Your task to perform on an android device: Show me popular games on the Play Store Image 0: 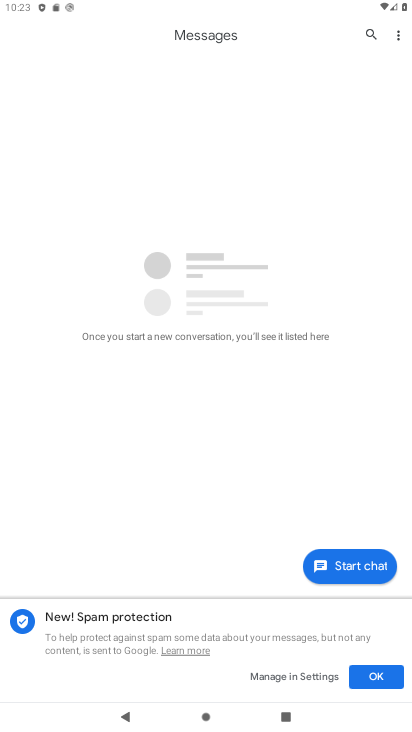
Step 0: press home button
Your task to perform on an android device: Show me popular games on the Play Store Image 1: 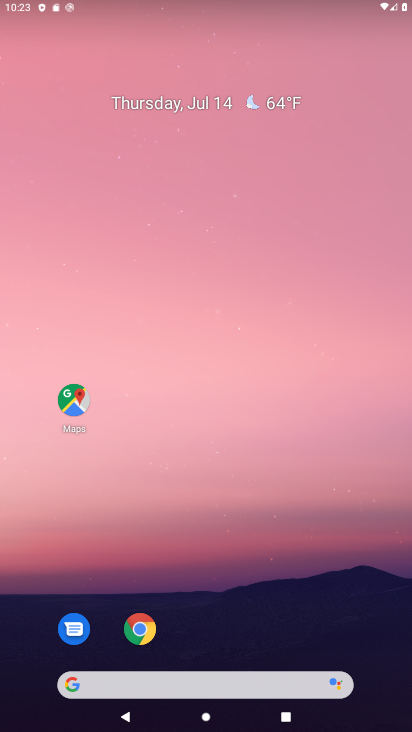
Step 1: drag from (175, 663) to (201, 277)
Your task to perform on an android device: Show me popular games on the Play Store Image 2: 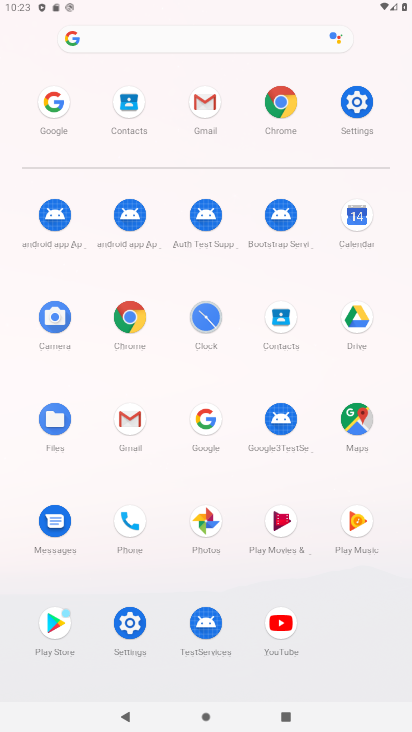
Step 2: click (56, 627)
Your task to perform on an android device: Show me popular games on the Play Store Image 3: 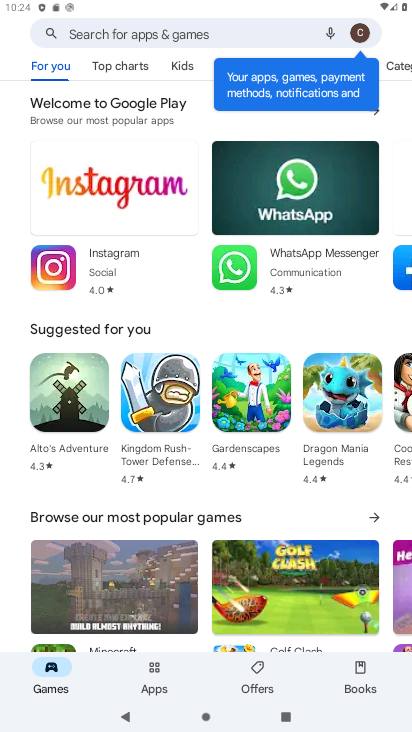
Step 3: type "popular games"
Your task to perform on an android device: Show me popular games on the Play Store Image 4: 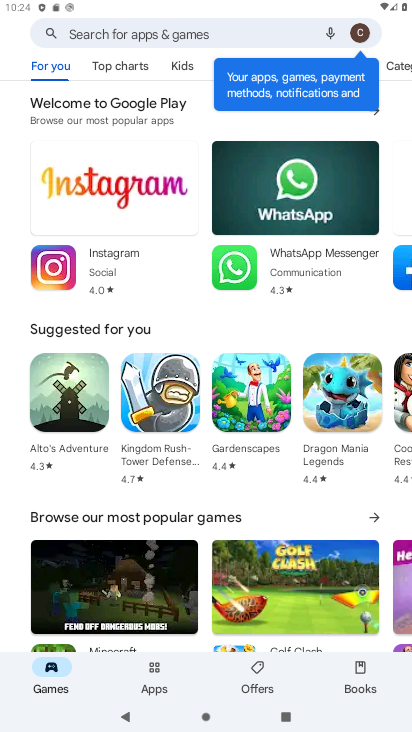
Step 4: click (96, 36)
Your task to perform on an android device: Show me popular games on the Play Store Image 5: 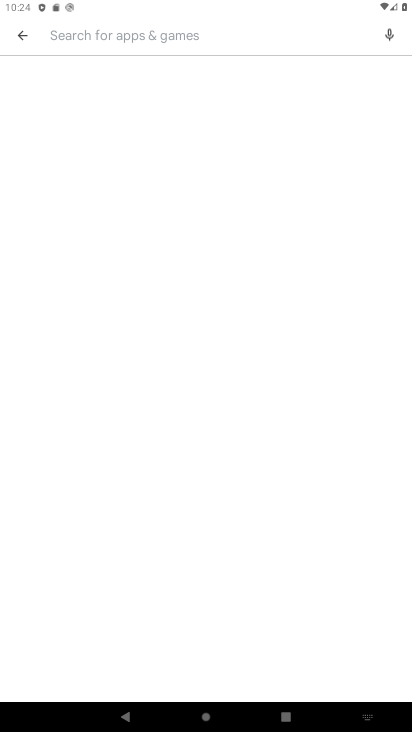
Step 5: type "popular games"
Your task to perform on an android device: Show me popular games on the Play Store Image 6: 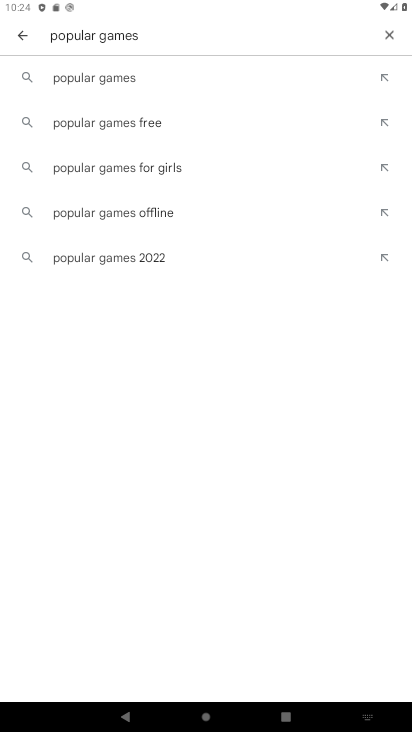
Step 6: click (116, 85)
Your task to perform on an android device: Show me popular games on the Play Store Image 7: 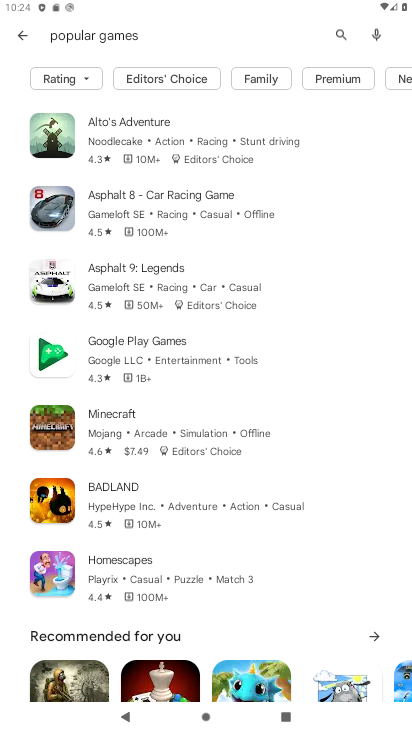
Step 7: task complete